Your task to perform on an android device: Go to Google maps Image 0: 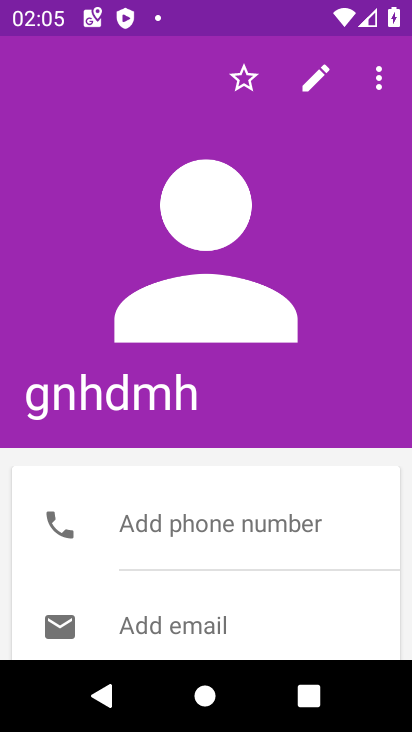
Step 0: press home button
Your task to perform on an android device: Go to Google maps Image 1: 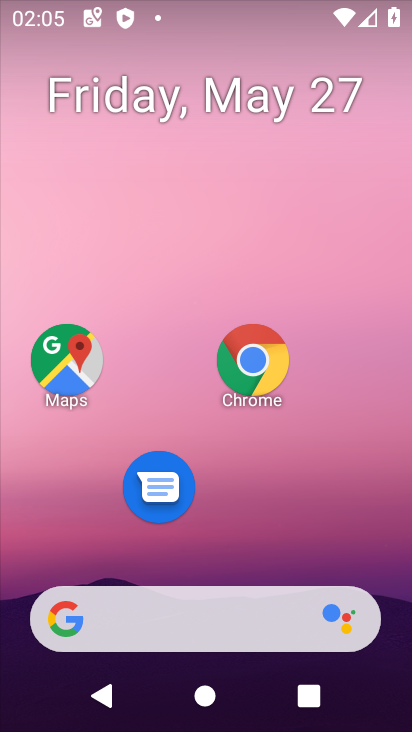
Step 1: click (63, 363)
Your task to perform on an android device: Go to Google maps Image 2: 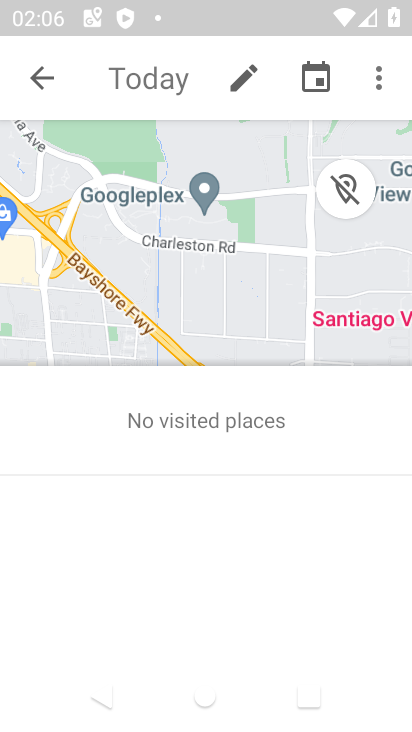
Step 2: task complete